Your task to perform on an android device: Open CNN.com Image 0: 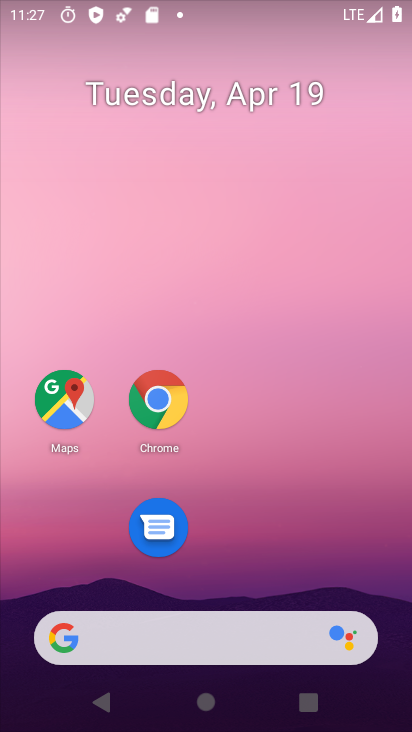
Step 0: drag from (257, 609) to (239, 32)
Your task to perform on an android device: Open CNN.com Image 1: 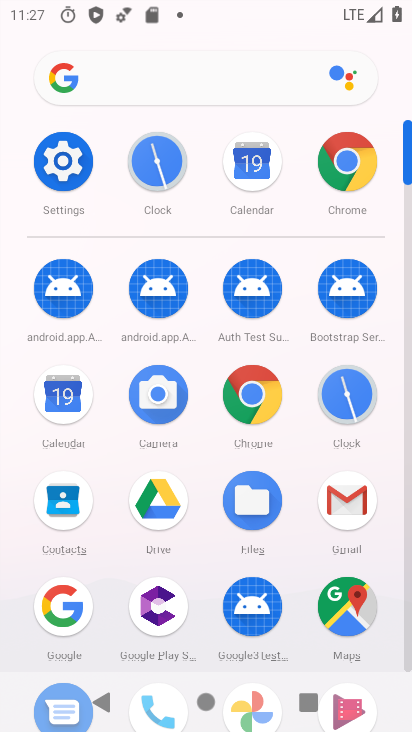
Step 1: click (255, 380)
Your task to perform on an android device: Open CNN.com Image 2: 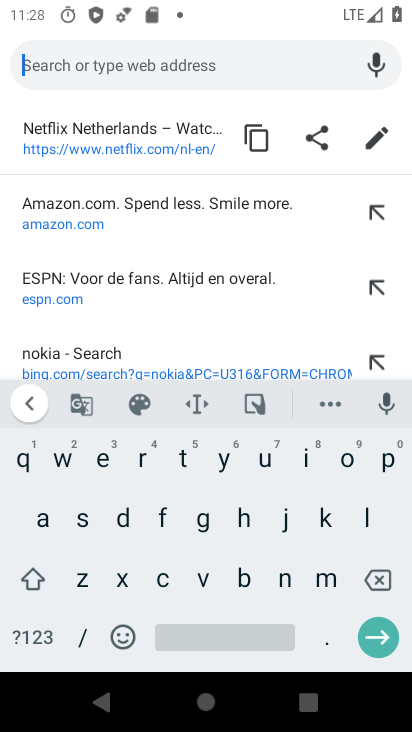
Step 2: click (163, 577)
Your task to perform on an android device: Open CNN.com Image 3: 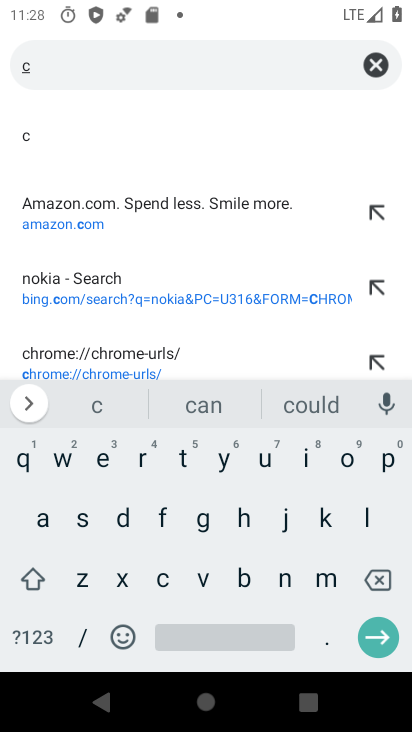
Step 3: click (281, 581)
Your task to perform on an android device: Open CNN.com Image 4: 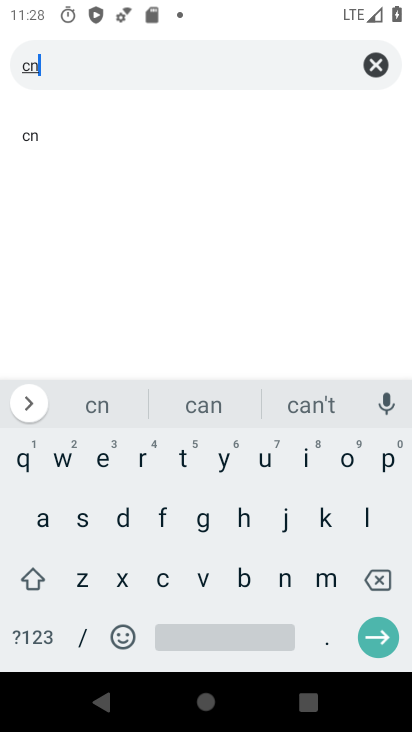
Step 4: click (285, 580)
Your task to perform on an android device: Open CNN.com Image 5: 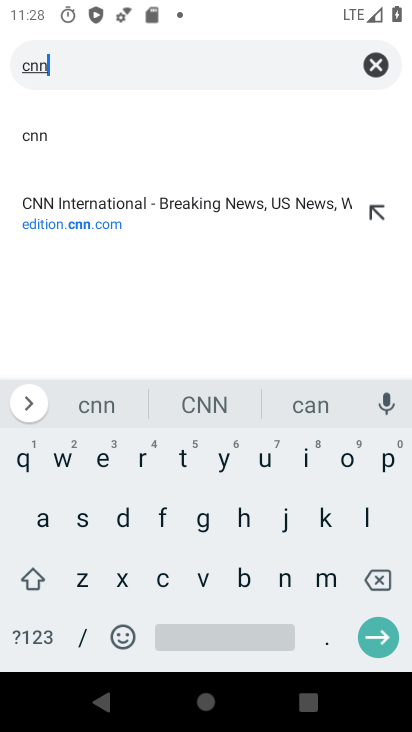
Step 5: click (144, 215)
Your task to perform on an android device: Open CNN.com Image 6: 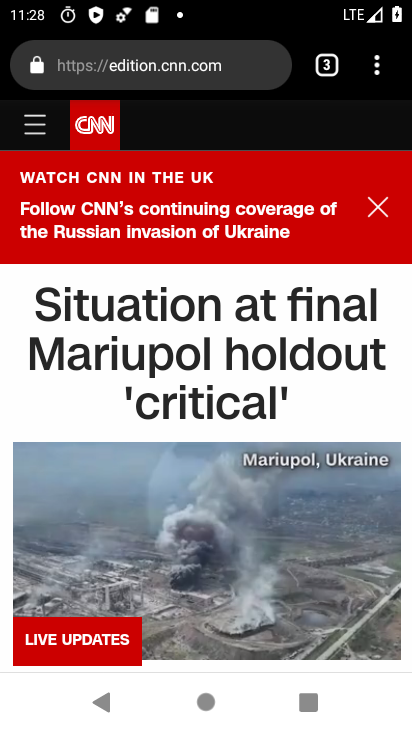
Step 6: task complete